Your task to perform on an android device: Search for "usb-a" on bestbuy.com, select the first entry, add it to the cart, then select checkout. Image 0: 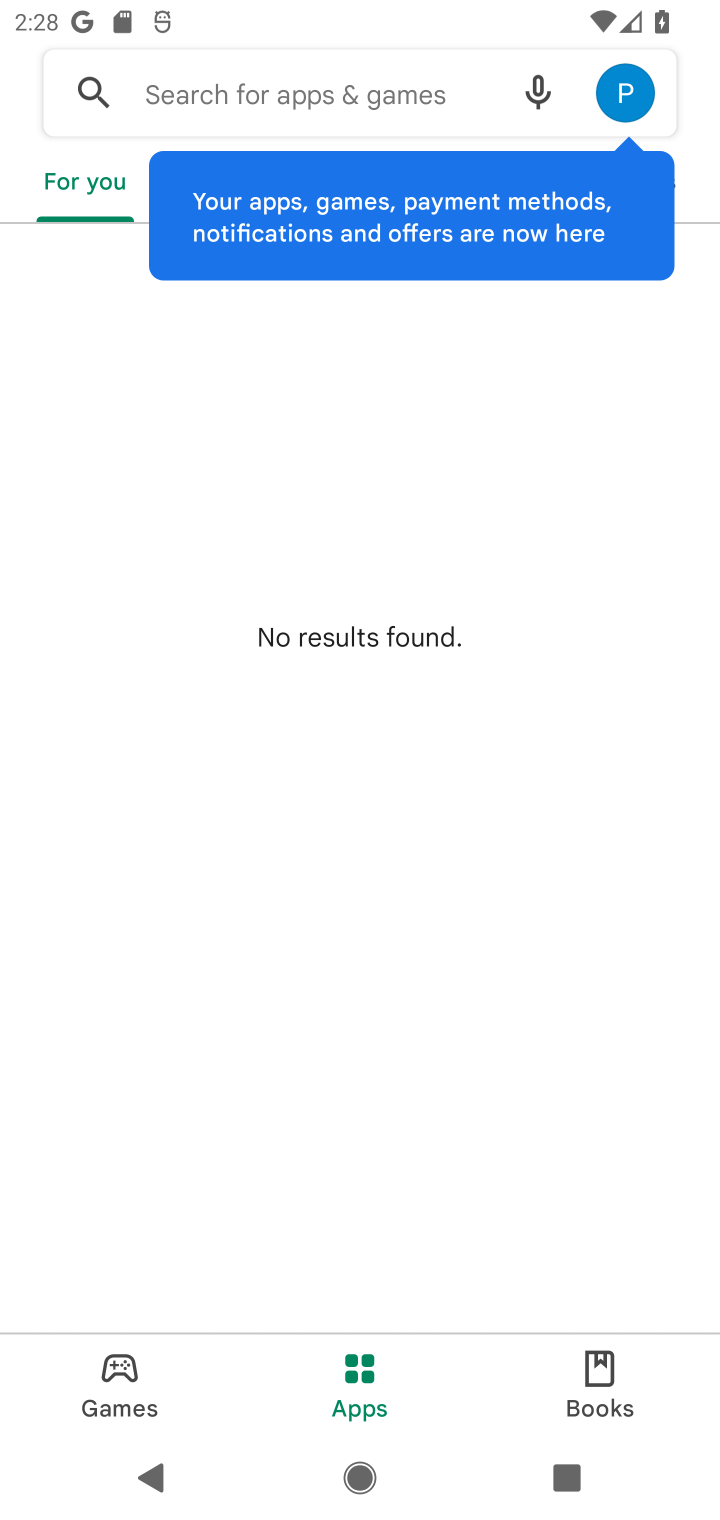
Step 0: press home button
Your task to perform on an android device: Search for "usb-a" on bestbuy.com, select the first entry, add it to the cart, then select checkout. Image 1: 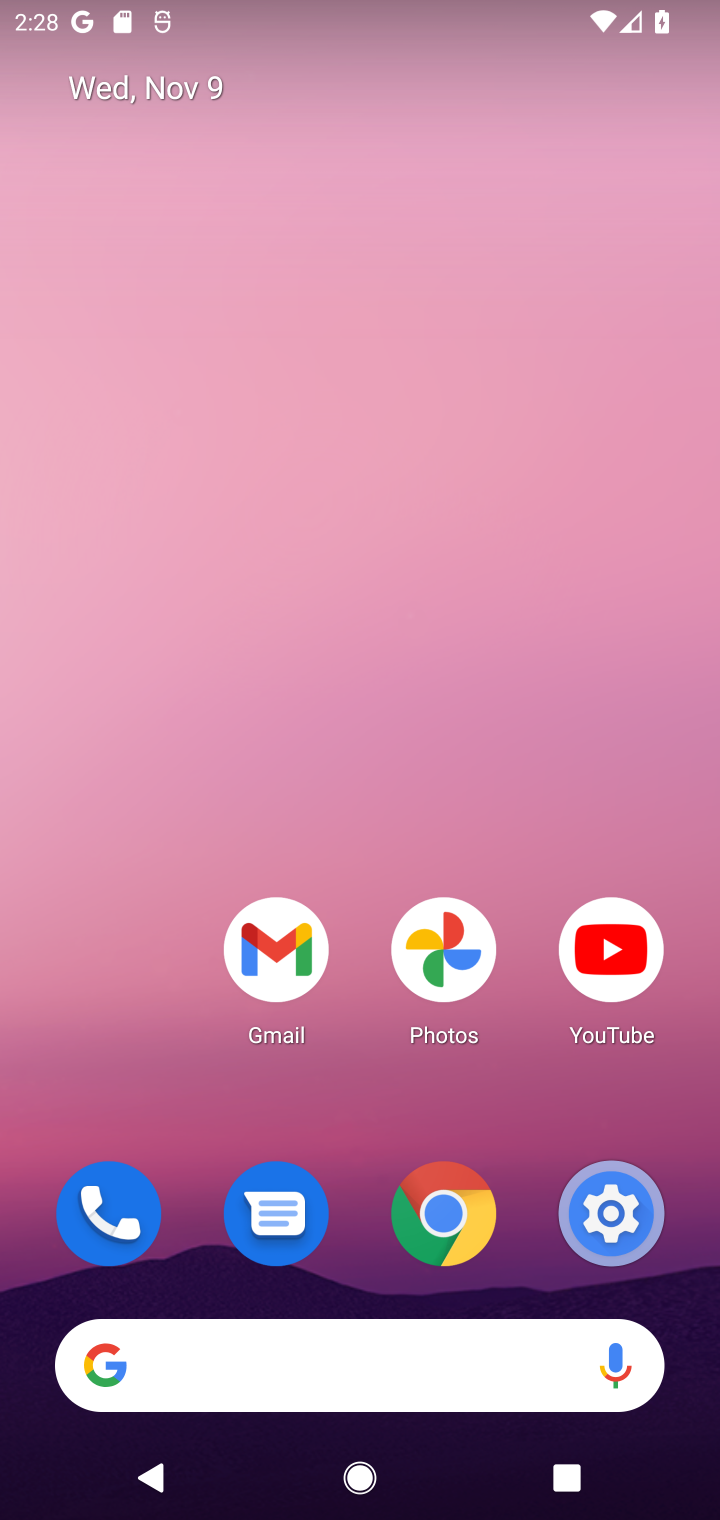
Step 1: click (442, 1210)
Your task to perform on an android device: Search for "usb-a" on bestbuy.com, select the first entry, add it to the cart, then select checkout. Image 2: 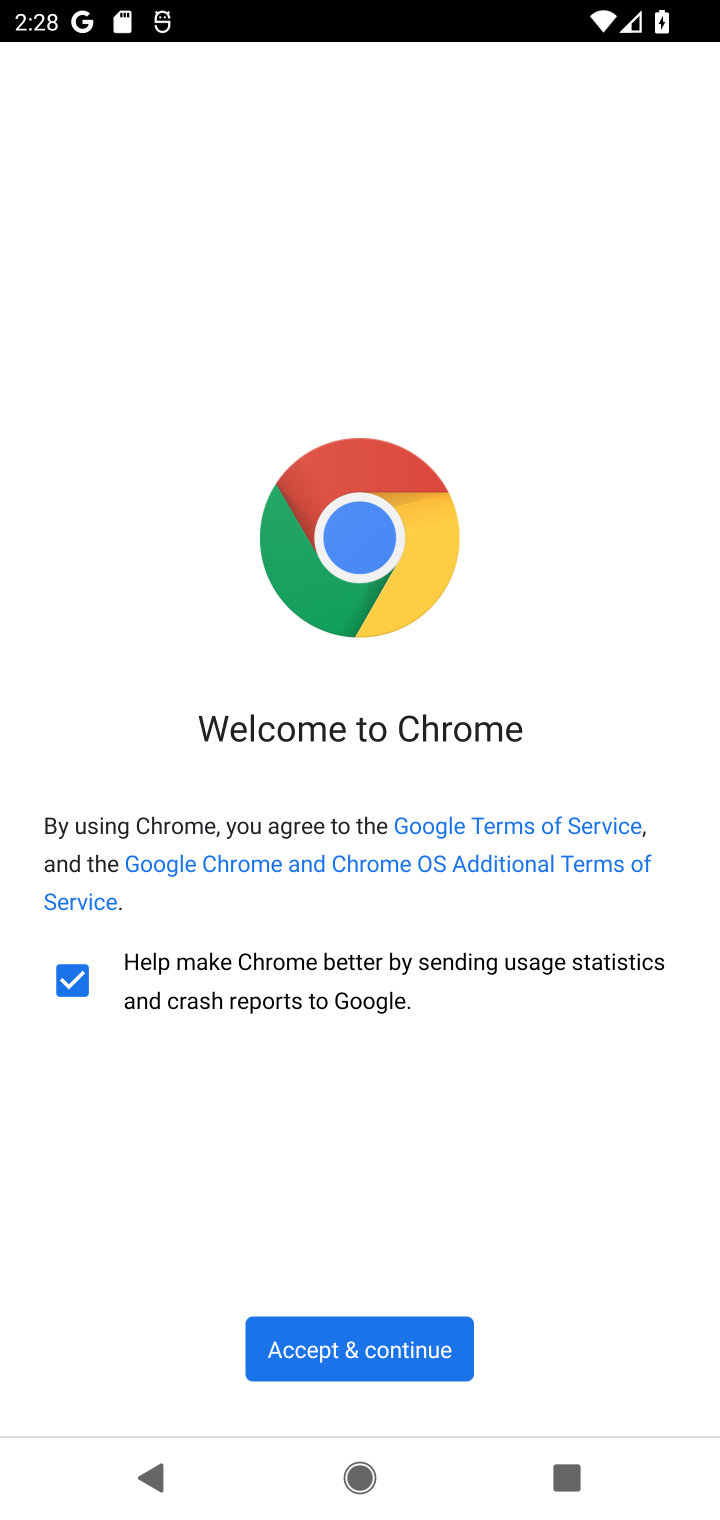
Step 2: click (361, 1355)
Your task to perform on an android device: Search for "usb-a" on bestbuy.com, select the first entry, add it to the cart, then select checkout. Image 3: 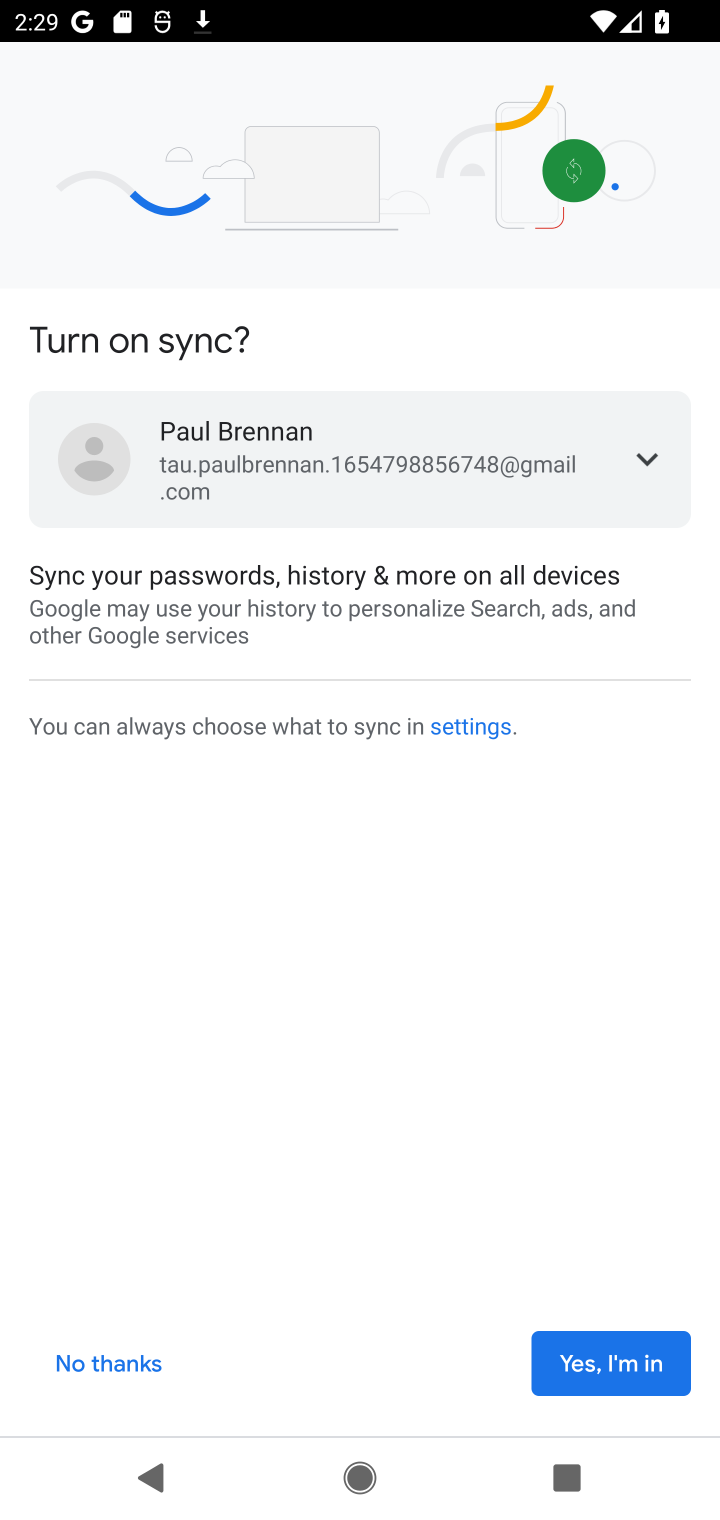
Step 3: click (599, 1365)
Your task to perform on an android device: Search for "usb-a" on bestbuy.com, select the first entry, add it to the cart, then select checkout. Image 4: 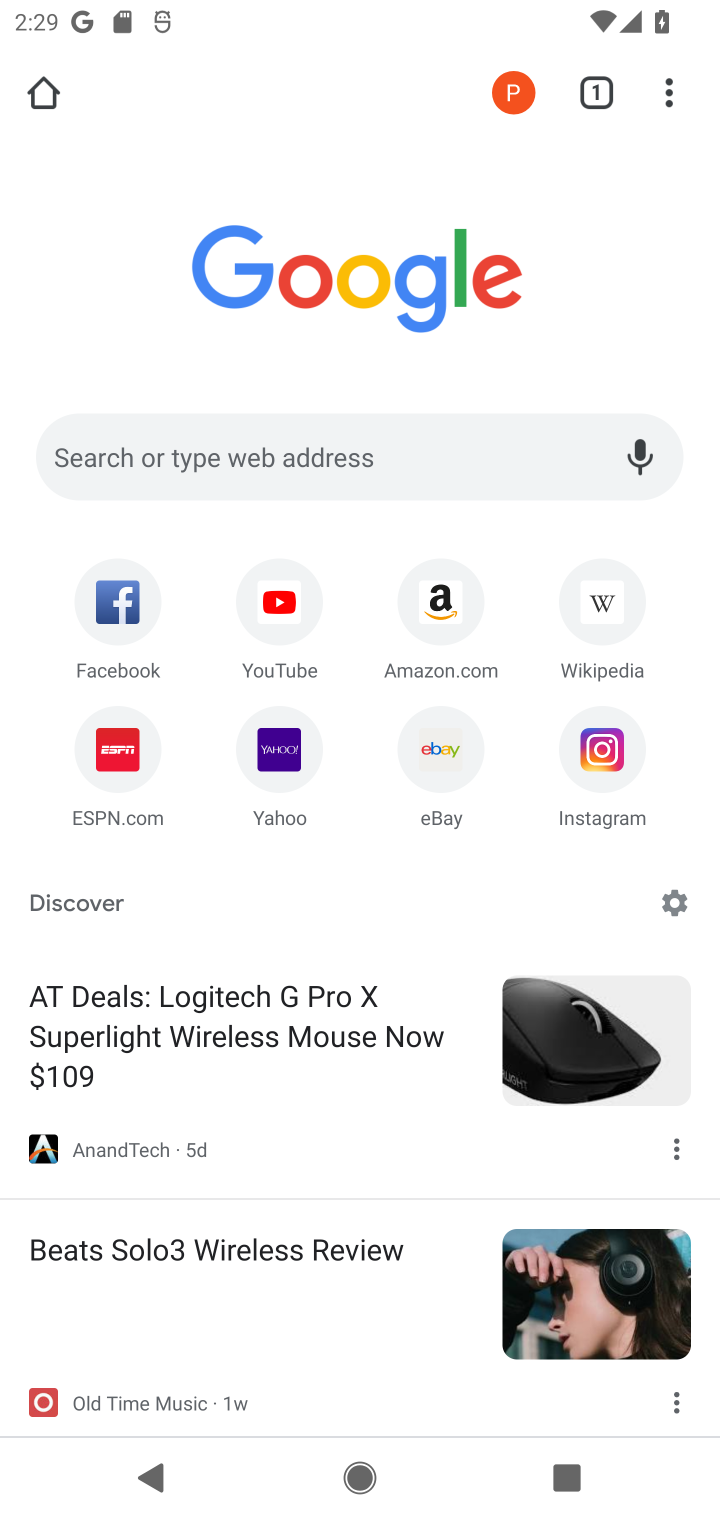
Step 4: click (426, 452)
Your task to perform on an android device: Search for "usb-a" on bestbuy.com, select the first entry, add it to the cart, then select checkout. Image 5: 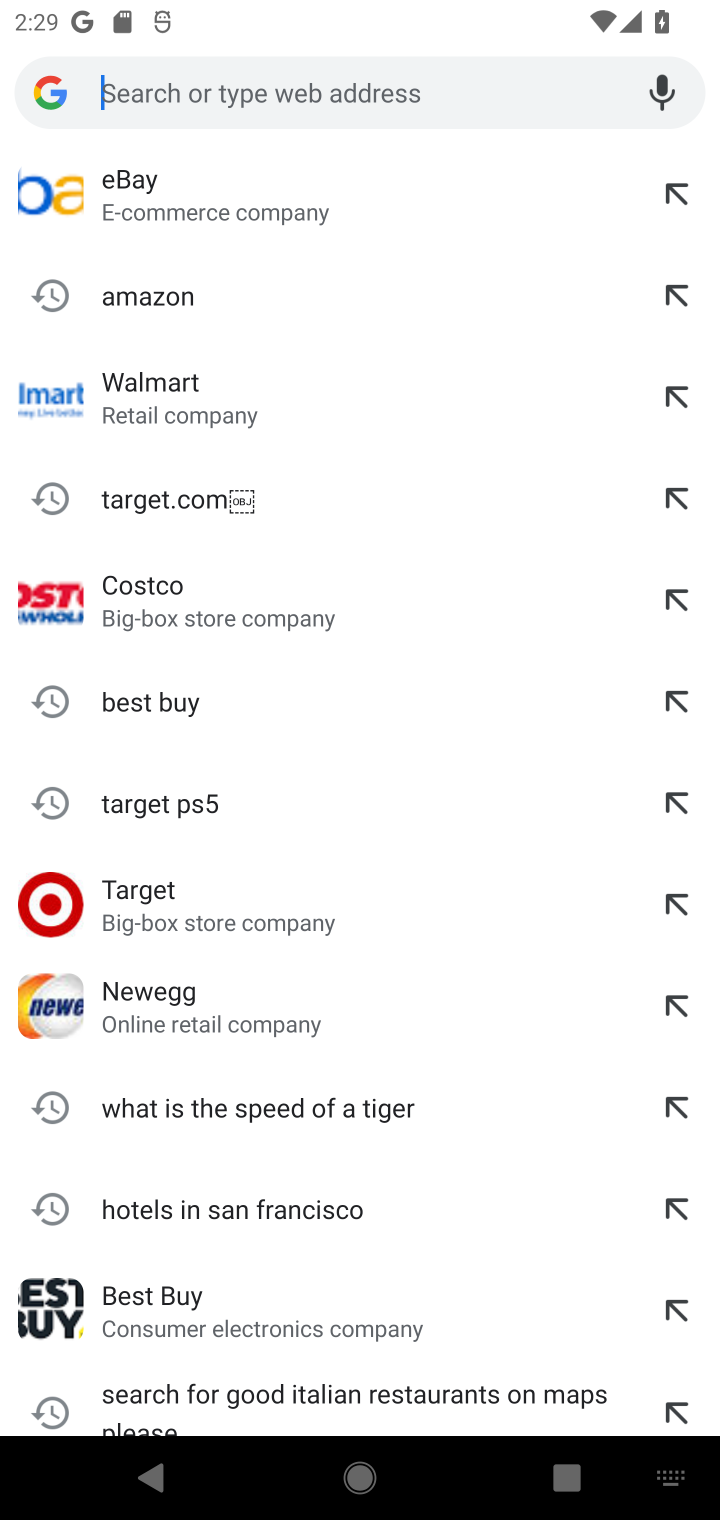
Step 5: type "bestbuy.com"
Your task to perform on an android device: Search for "usb-a" on bestbuy.com, select the first entry, add it to the cart, then select checkout. Image 6: 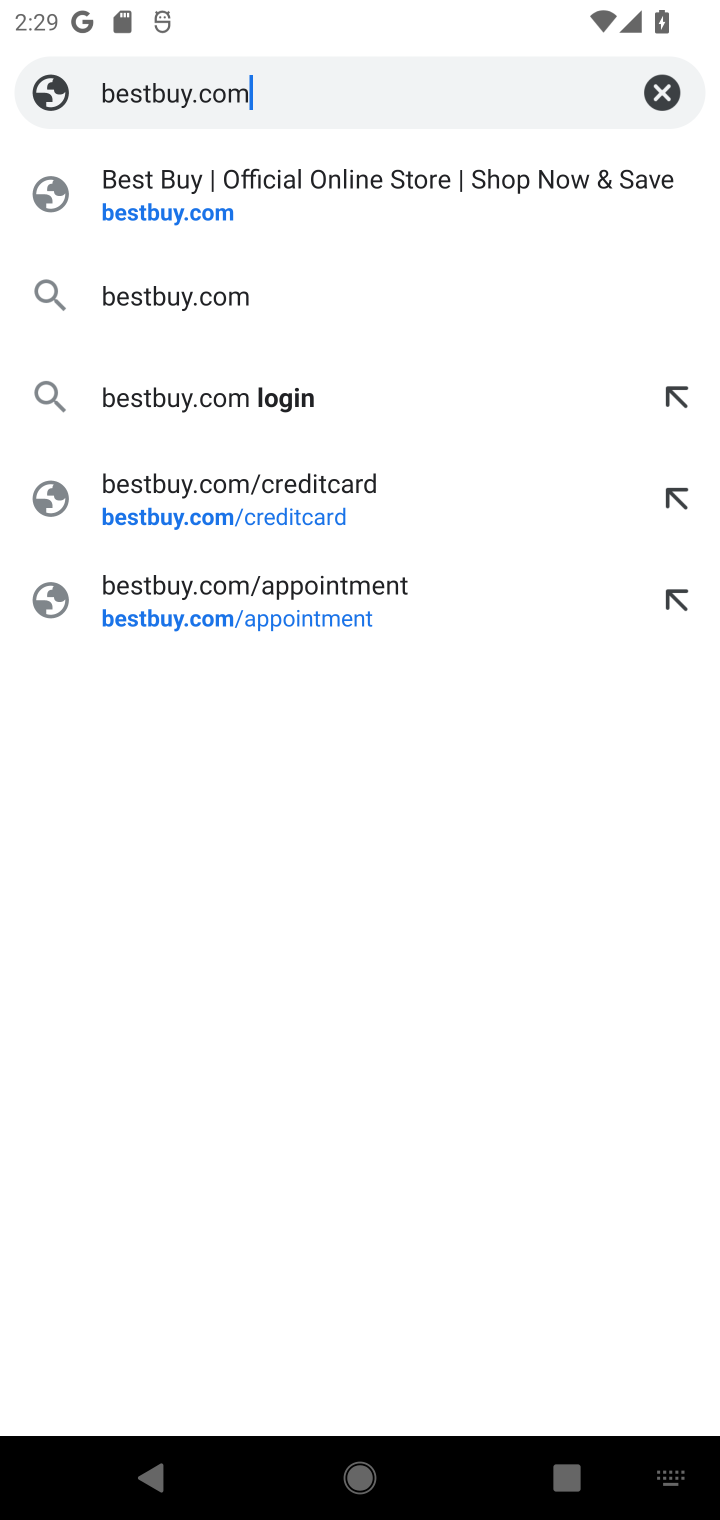
Step 6: click (186, 317)
Your task to perform on an android device: Search for "usb-a" on bestbuy.com, select the first entry, add it to the cart, then select checkout. Image 7: 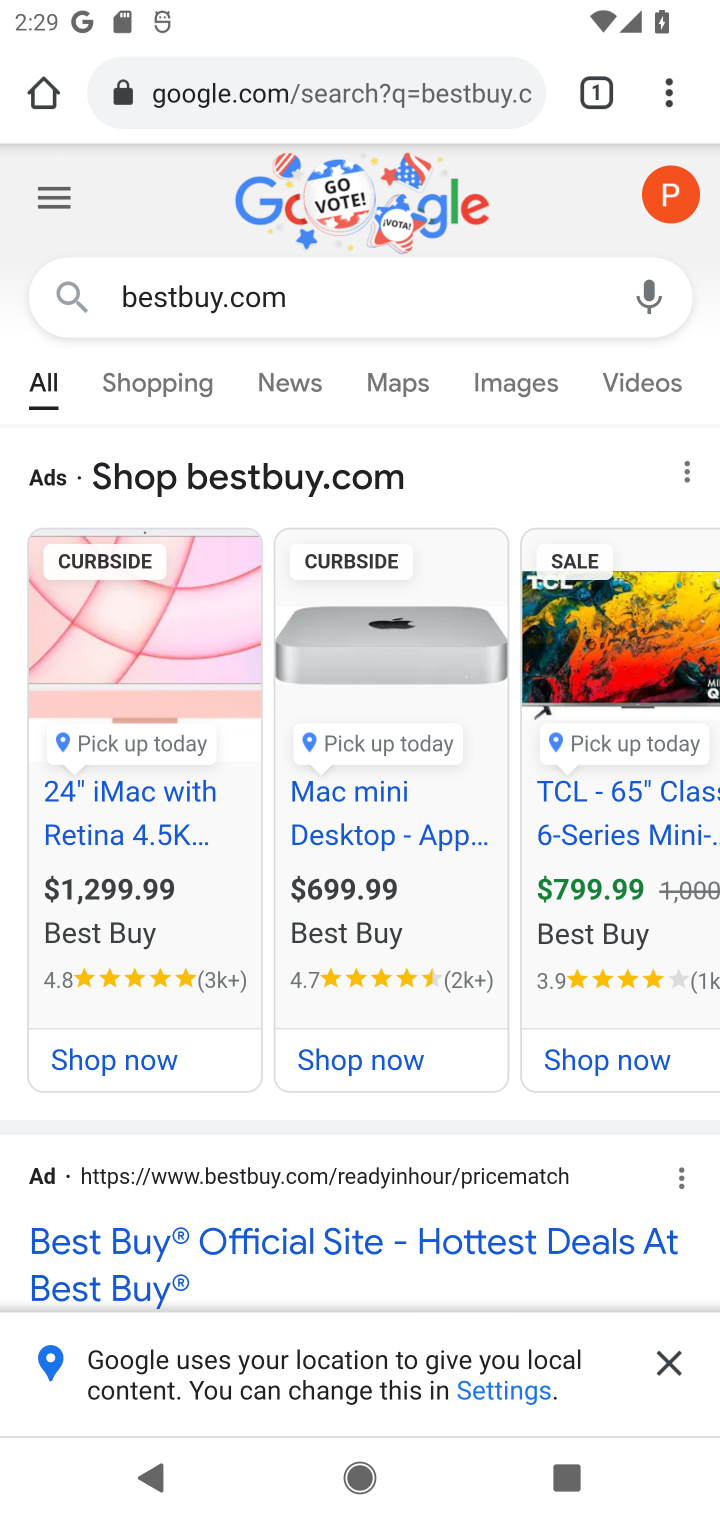
Step 7: drag from (300, 1209) to (365, 619)
Your task to perform on an android device: Search for "usb-a" on bestbuy.com, select the first entry, add it to the cart, then select checkout. Image 8: 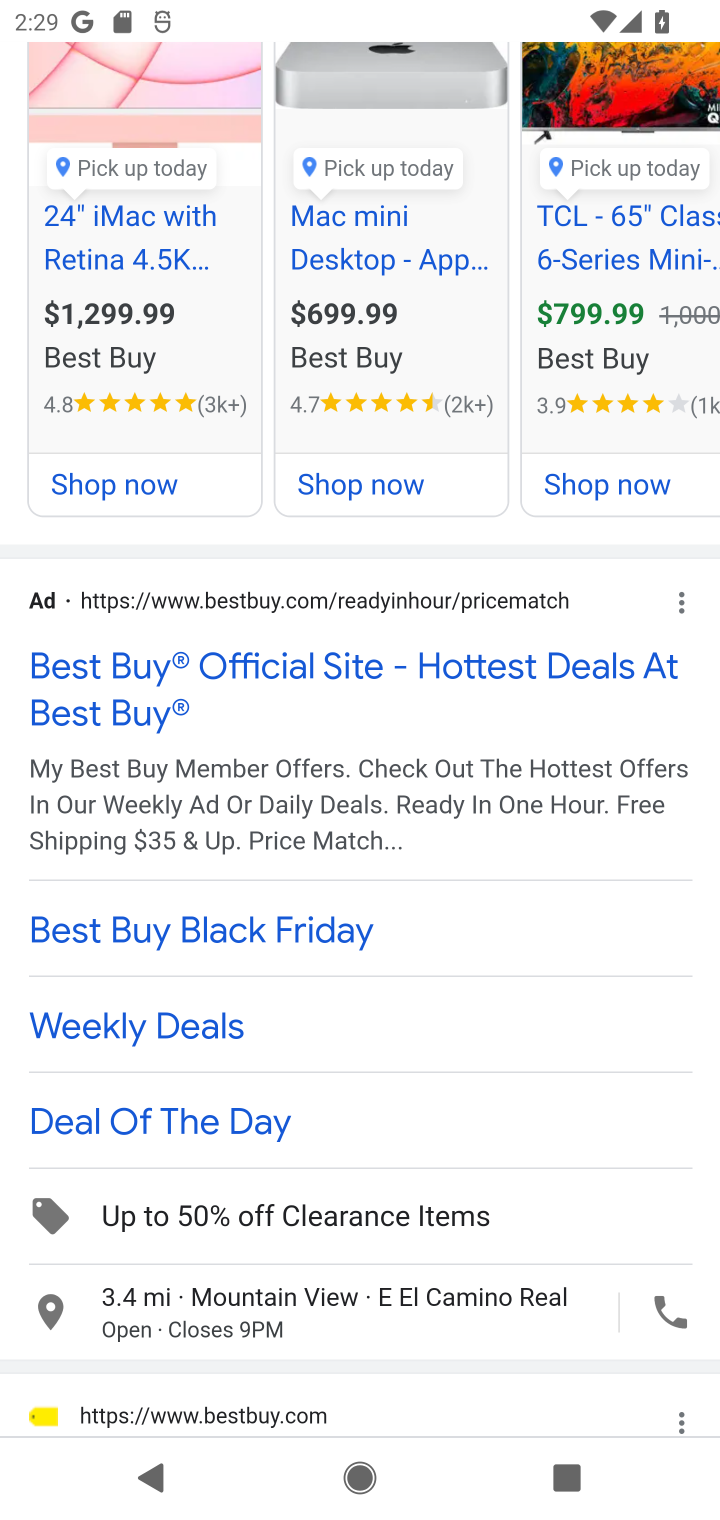
Step 8: drag from (340, 1180) to (414, 389)
Your task to perform on an android device: Search for "usb-a" on bestbuy.com, select the first entry, add it to the cart, then select checkout. Image 9: 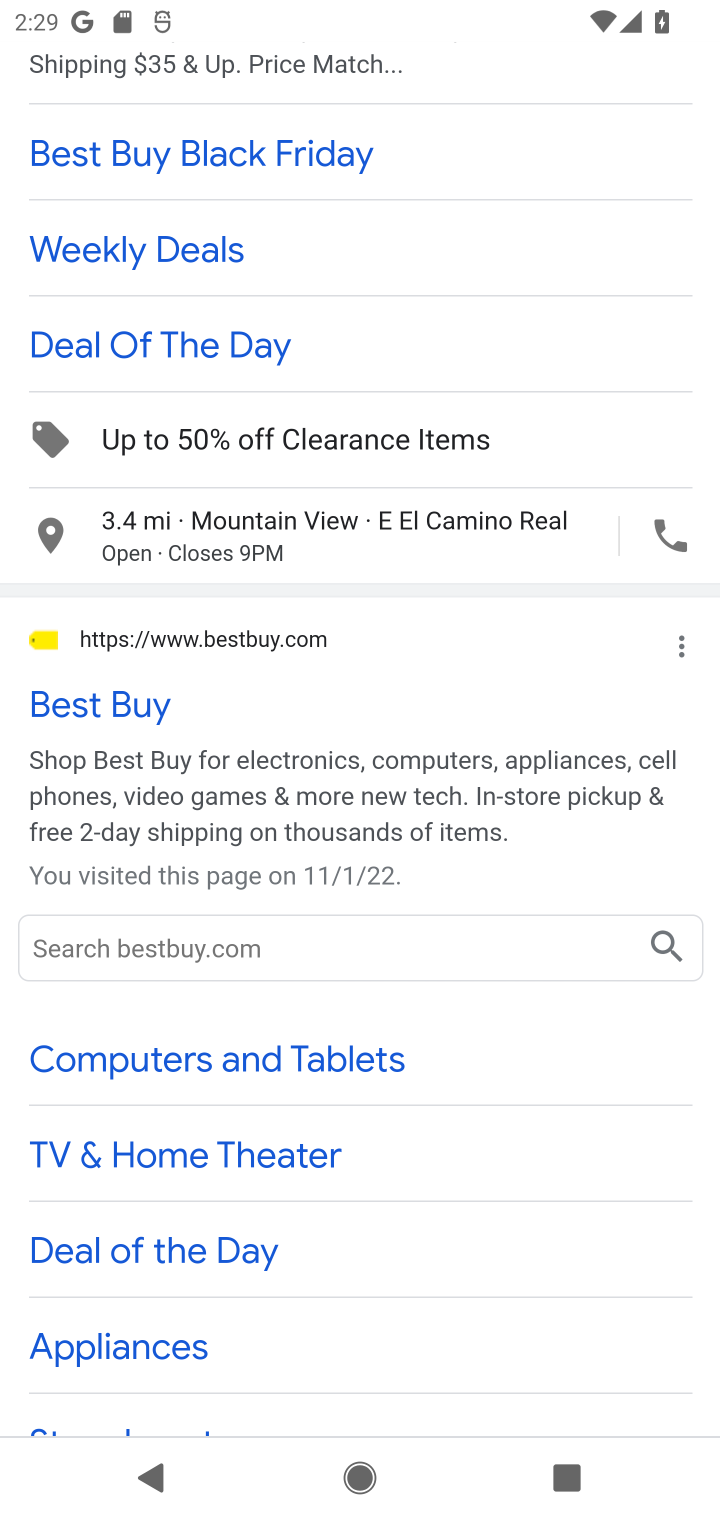
Step 9: click (112, 698)
Your task to perform on an android device: Search for "usb-a" on bestbuy.com, select the first entry, add it to the cart, then select checkout. Image 10: 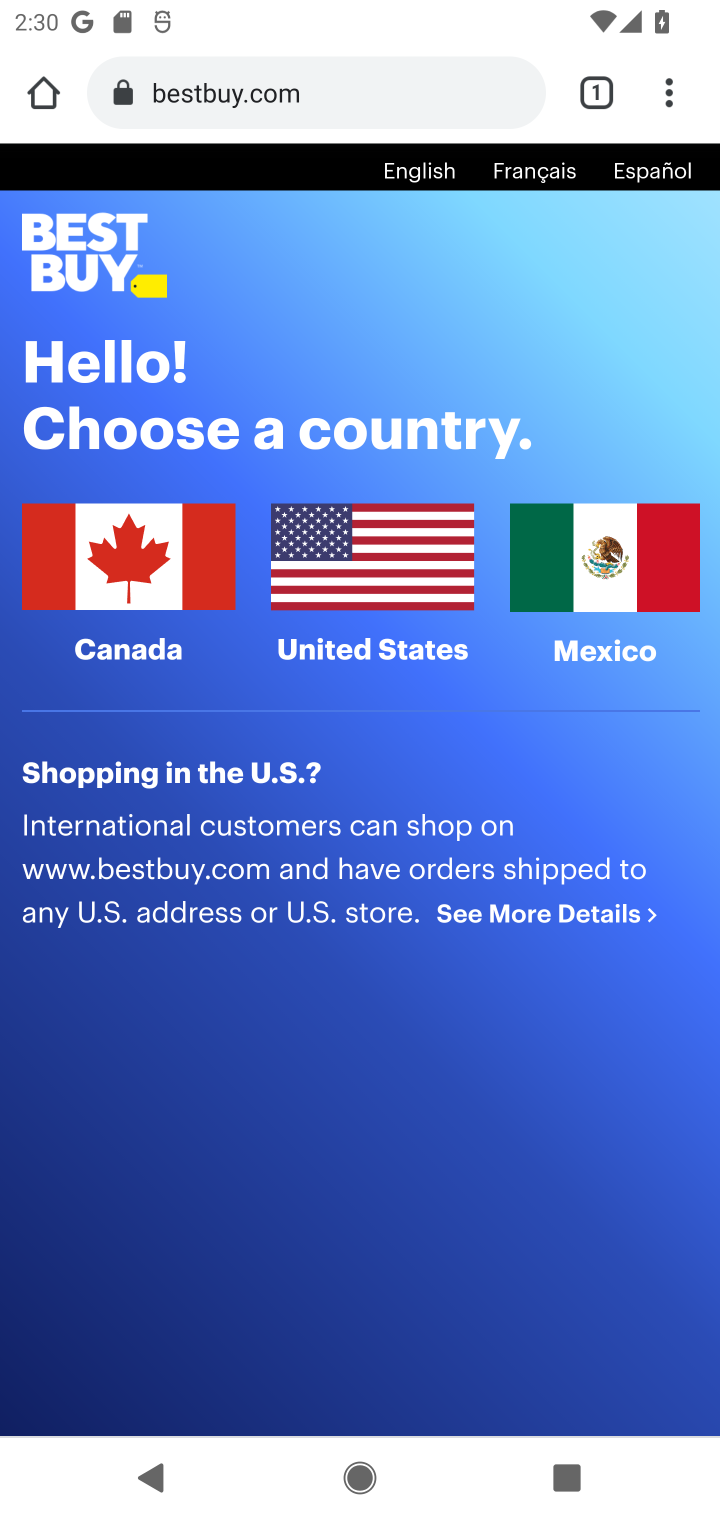
Step 10: click (350, 598)
Your task to perform on an android device: Search for "usb-a" on bestbuy.com, select the first entry, add it to the cart, then select checkout. Image 11: 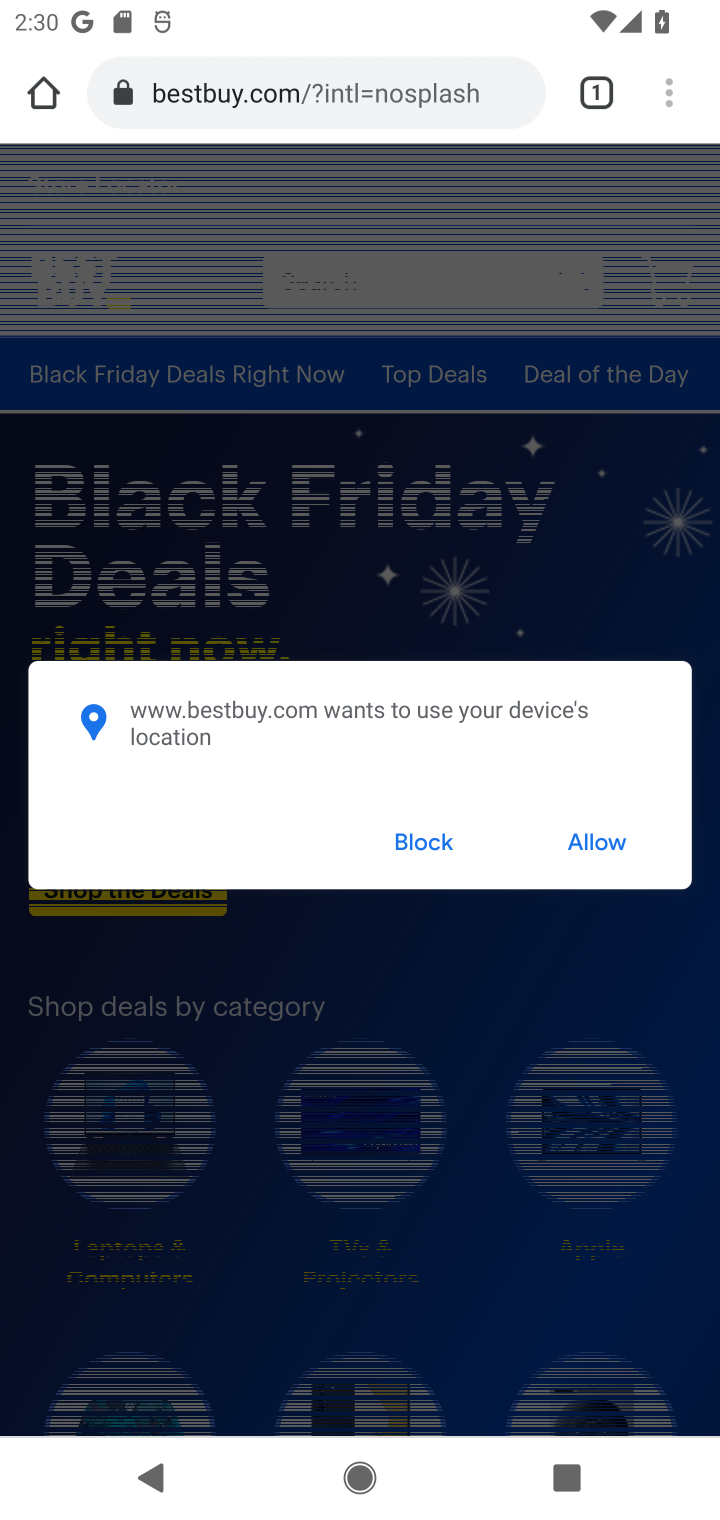
Step 11: click (461, 283)
Your task to perform on an android device: Search for "usb-a" on bestbuy.com, select the first entry, add it to the cart, then select checkout. Image 12: 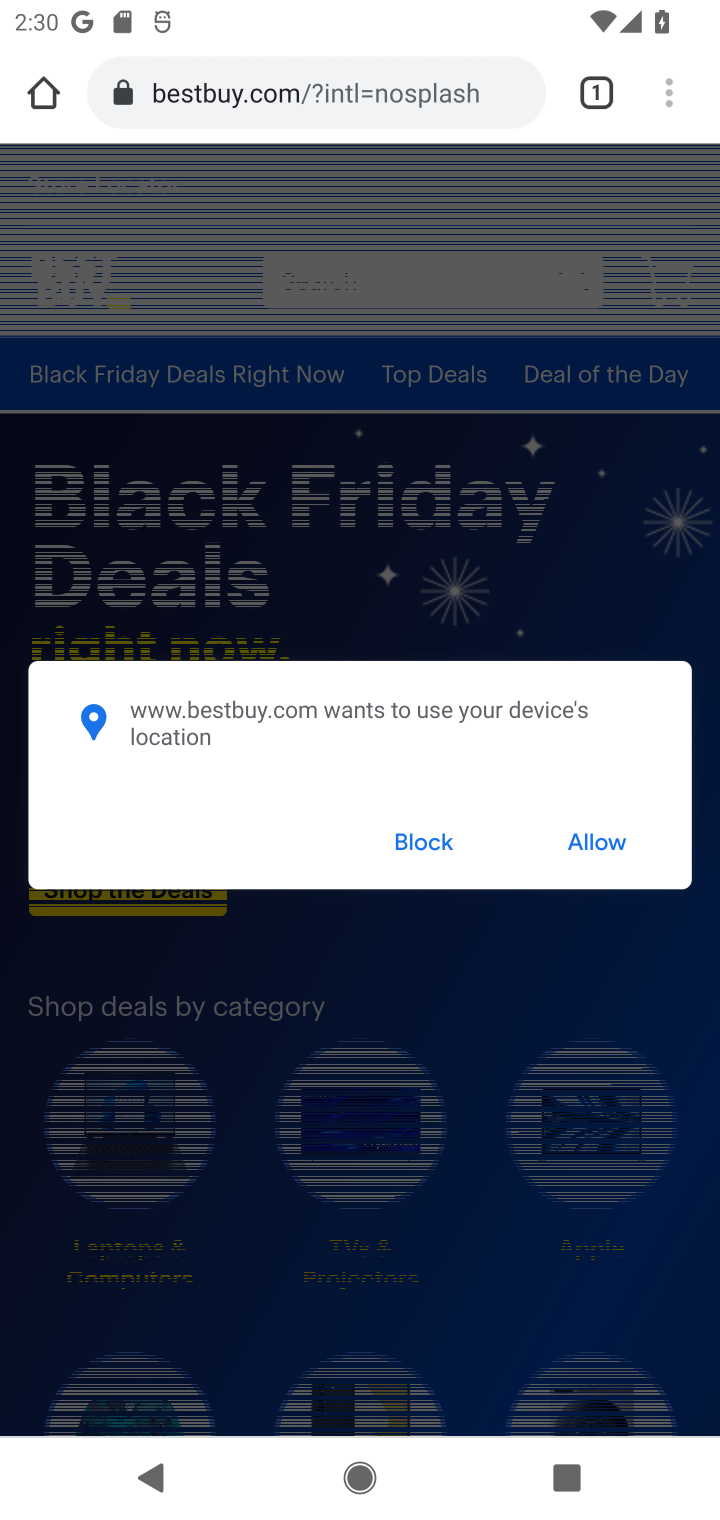
Step 12: click (608, 848)
Your task to perform on an android device: Search for "usb-a" on bestbuy.com, select the first entry, add it to the cart, then select checkout. Image 13: 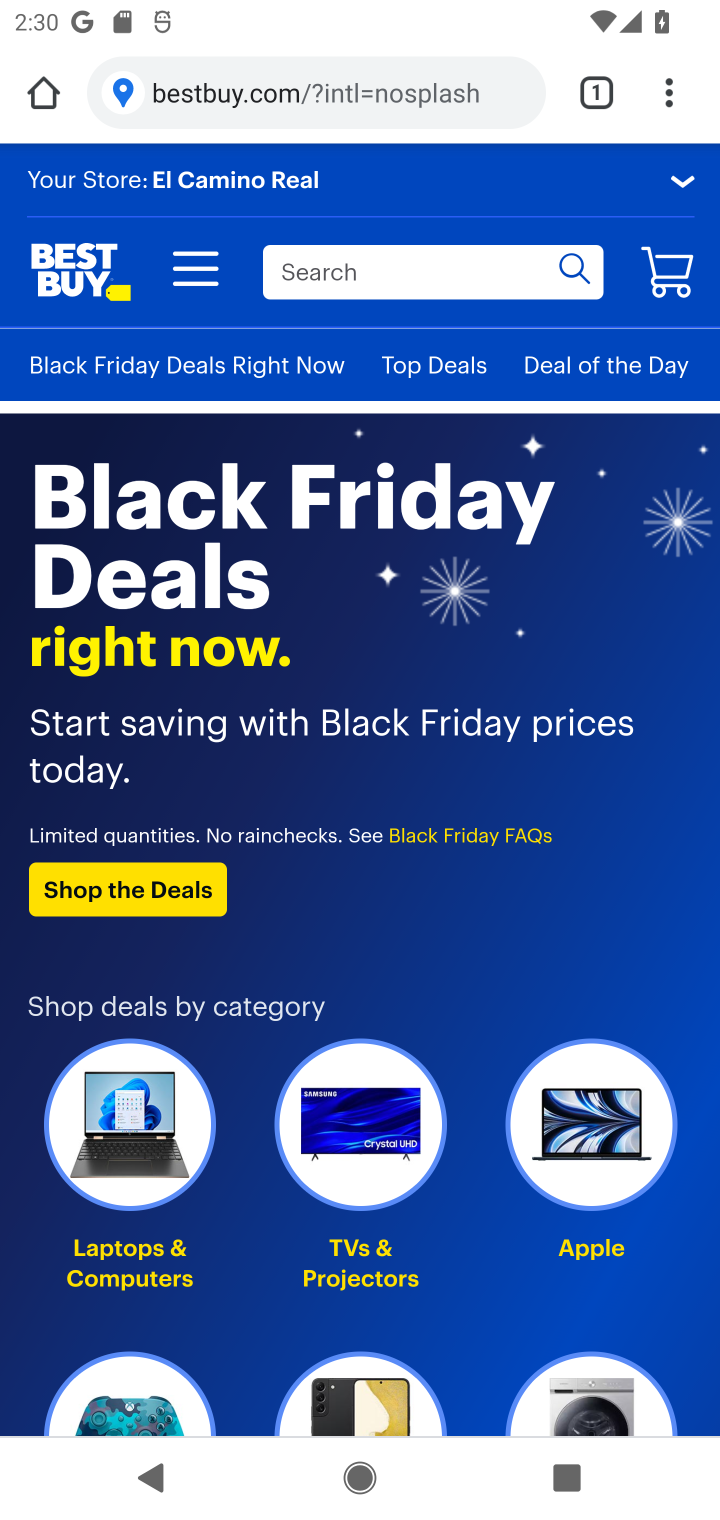
Step 13: click (397, 263)
Your task to perform on an android device: Search for "usb-a" on bestbuy.com, select the first entry, add it to the cart, then select checkout. Image 14: 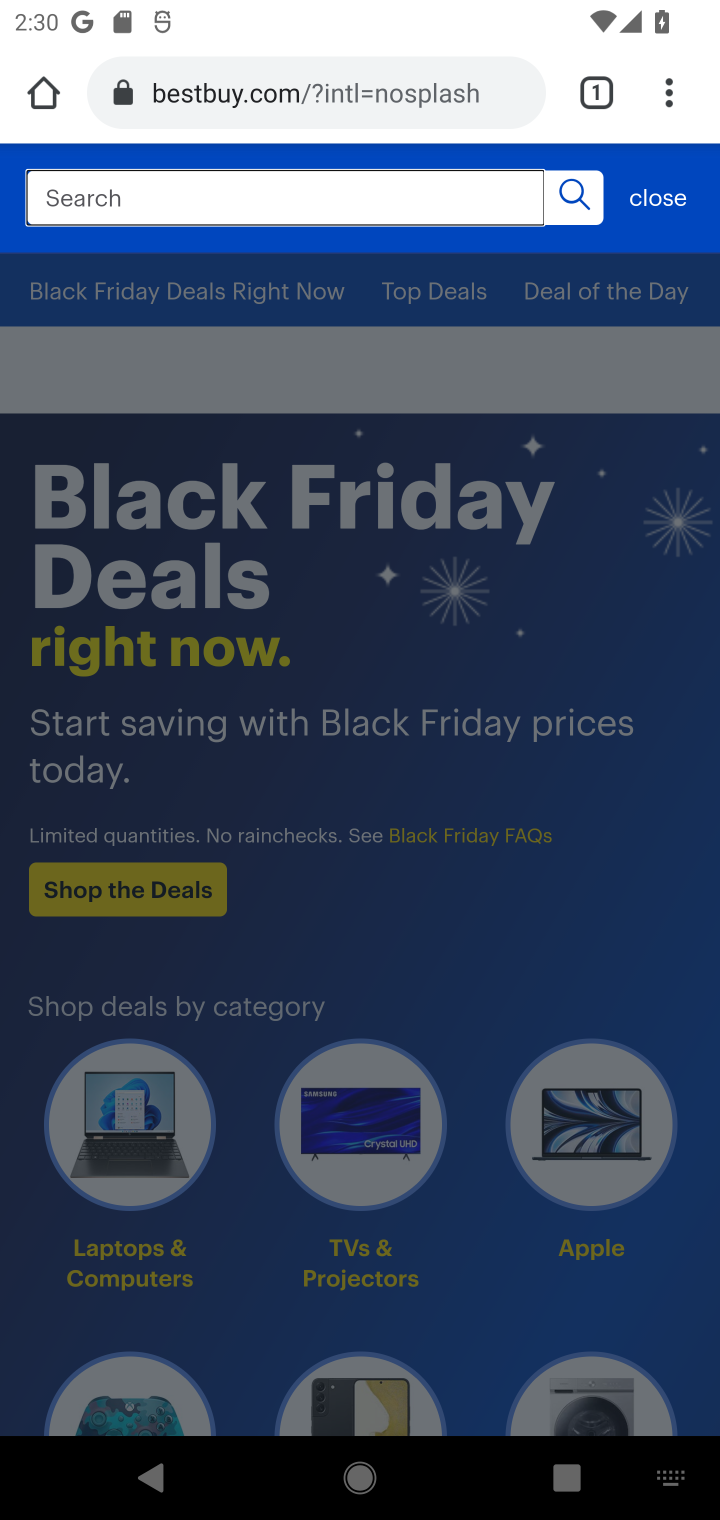
Step 14: type "usb-a"
Your task to perform on an android device: Search for "usb-a" on bestbuy.com, select the first entry, add it to the cart, then select checkout. Image 15: 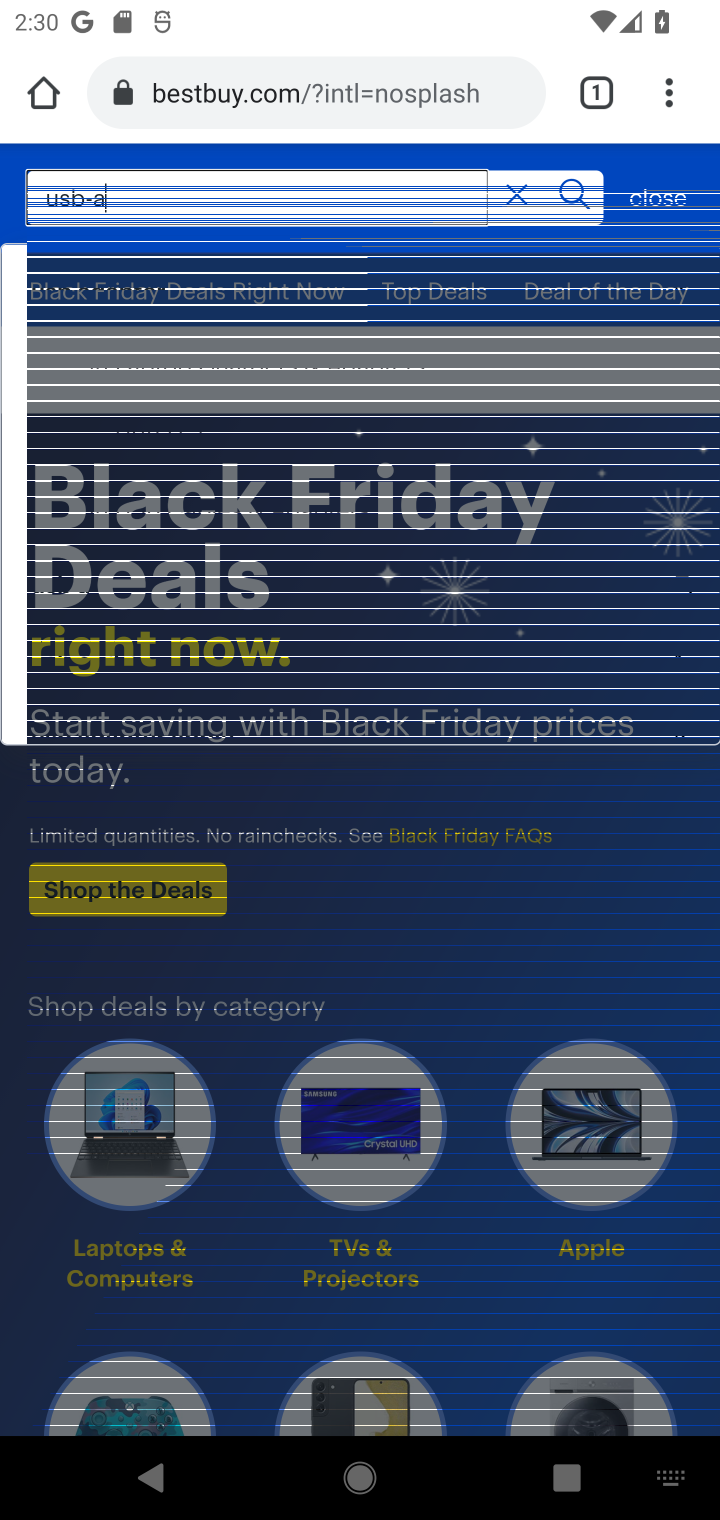
Step 15: click (574, 191)
Your task to perform on an android device: Search for "usb-a" on bestbuy.com, select the first entry, add it to the cart, then select checkout. Image 16: 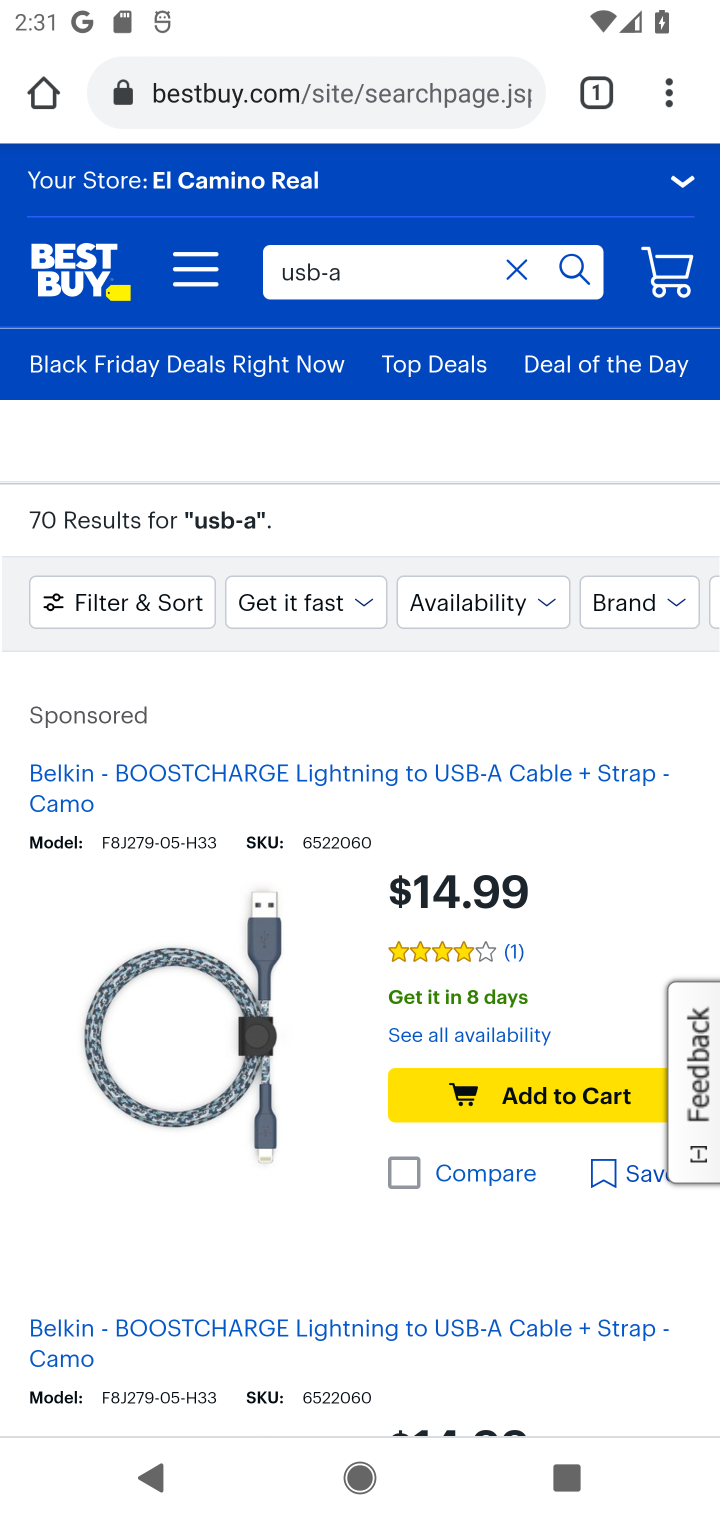
Step 16: click (350, 790)
Your task to perform on an android device: Search for "usb-a" on bestbuy.com, select the first entry, add it to the cart, then select checkout. Image 17: 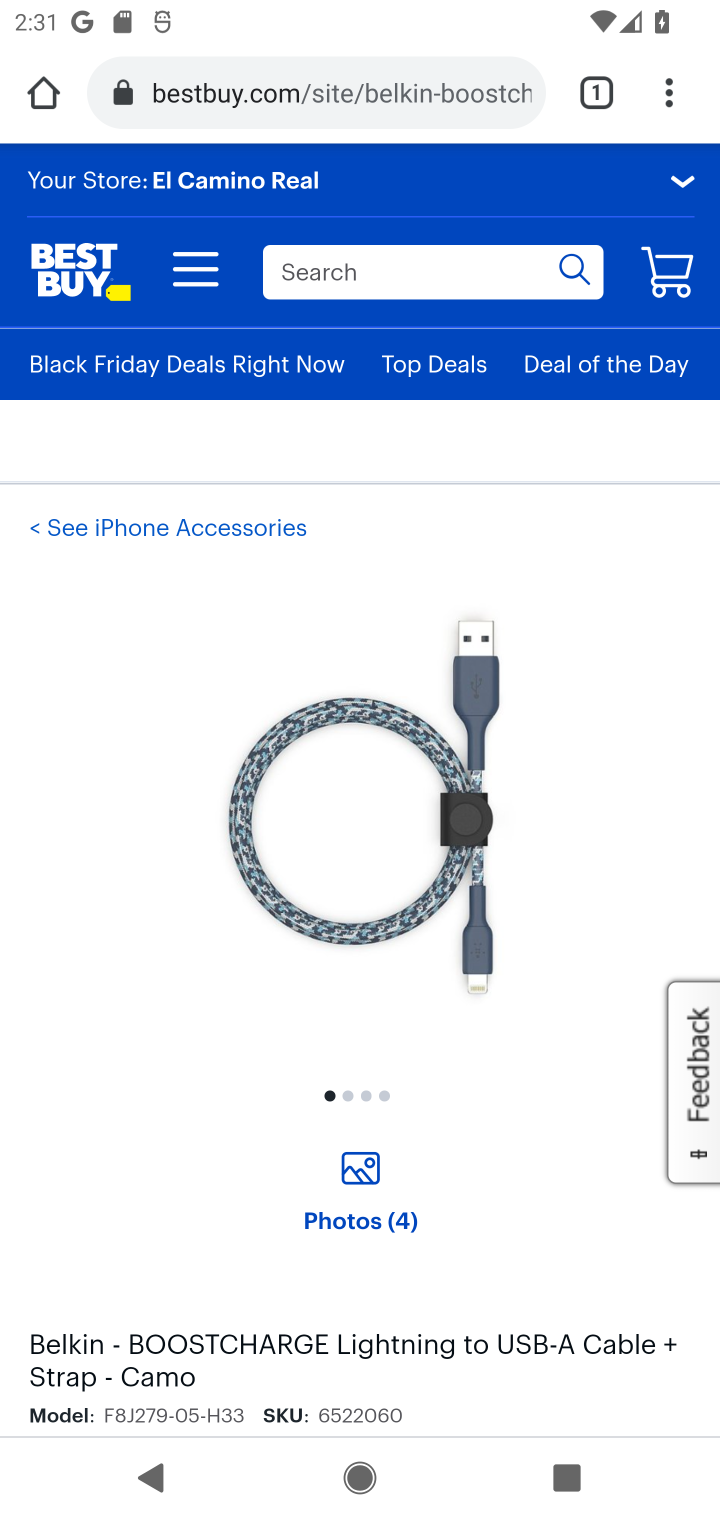
Step 17: drag from (487, 1115) to (521, 503)
Your task to perform on an android device: Search for "usb-a" on bestbuy.com, select the first entry, add it to the cart, then select checkout. Image 18: 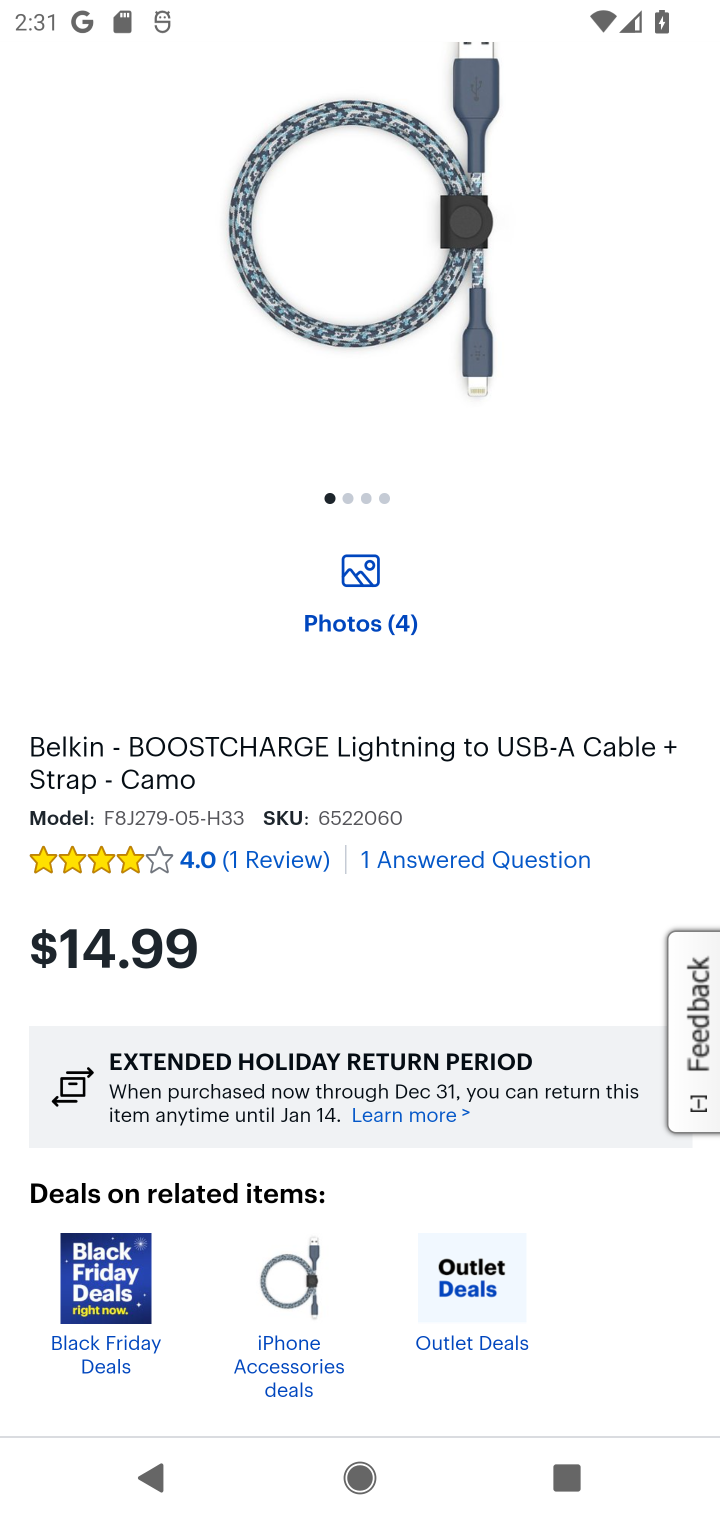
Step 18: drag from (595, 1287) to (594, 577)
Your task to perform on an android device: Search for "usb-a" on bestbuy.com, select the first entry, add it to the cart, then select checkout. Image 19: 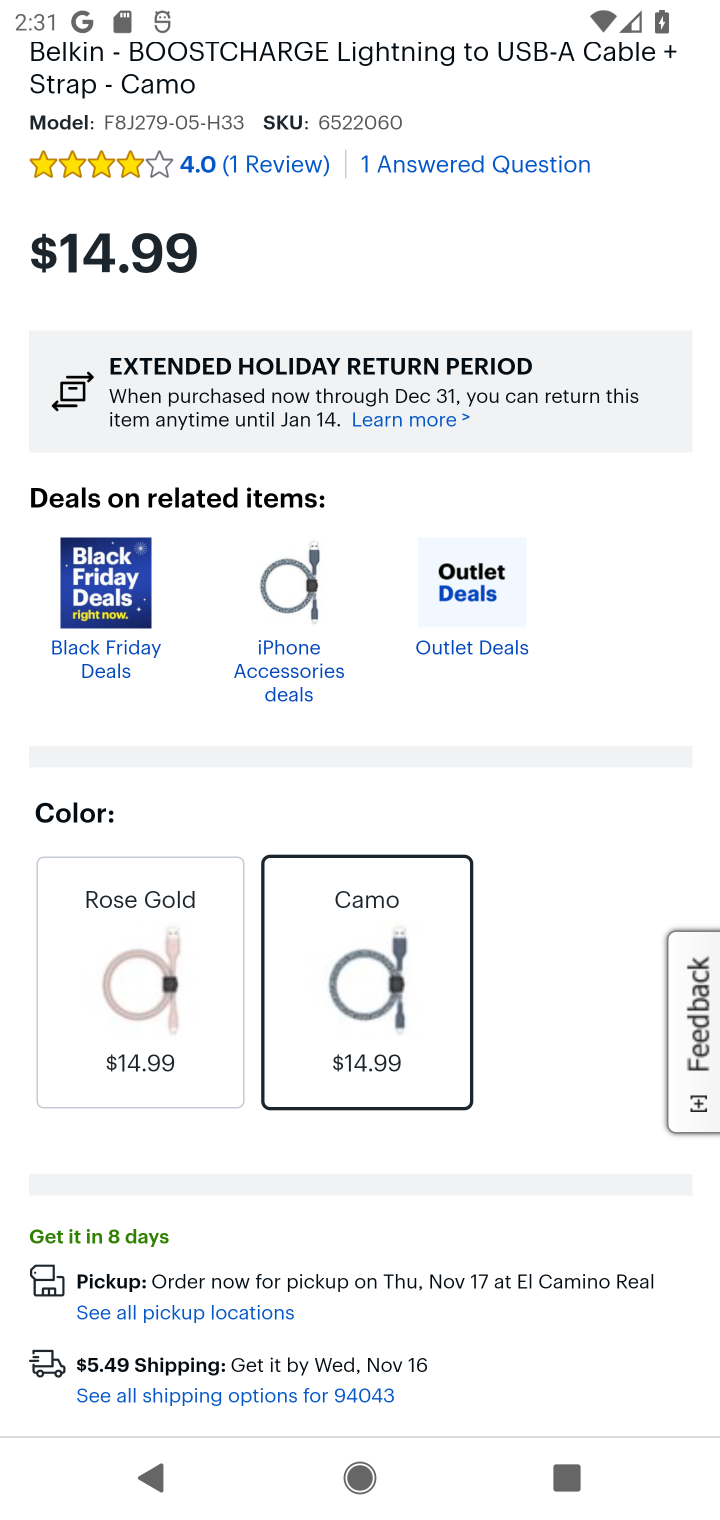
Step 19: drag from (579, 926) to (597, 343)
Your task to perform on an android device: Search for "usb-a" on bestbuy.com, select the first entry, add it to the cart, then select checkout. Image 20: 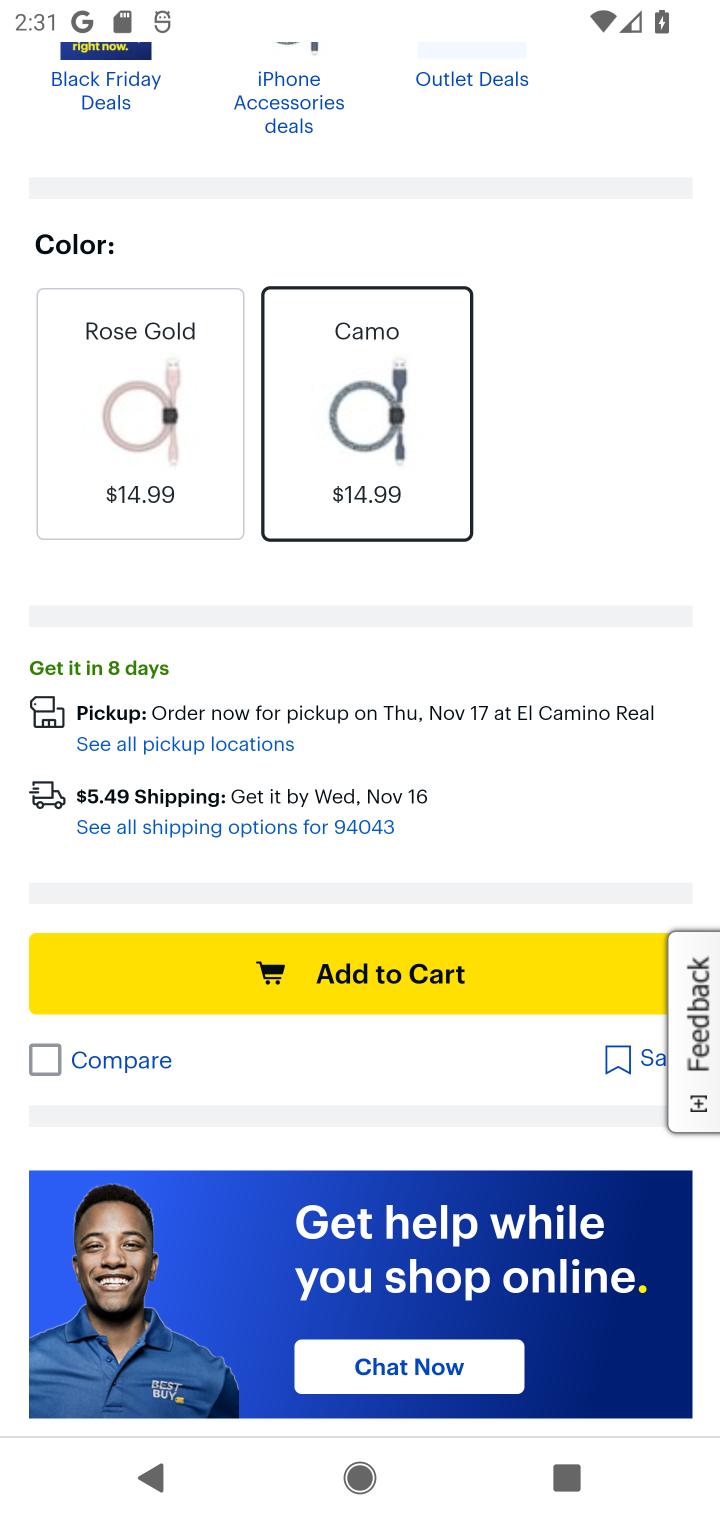
Step 20: click (370, 976)
Your task to perform on an android device: Search for "usb-a" on bestbuy.com, select the first entry, add it to the cart, then select checkout. Image 21: 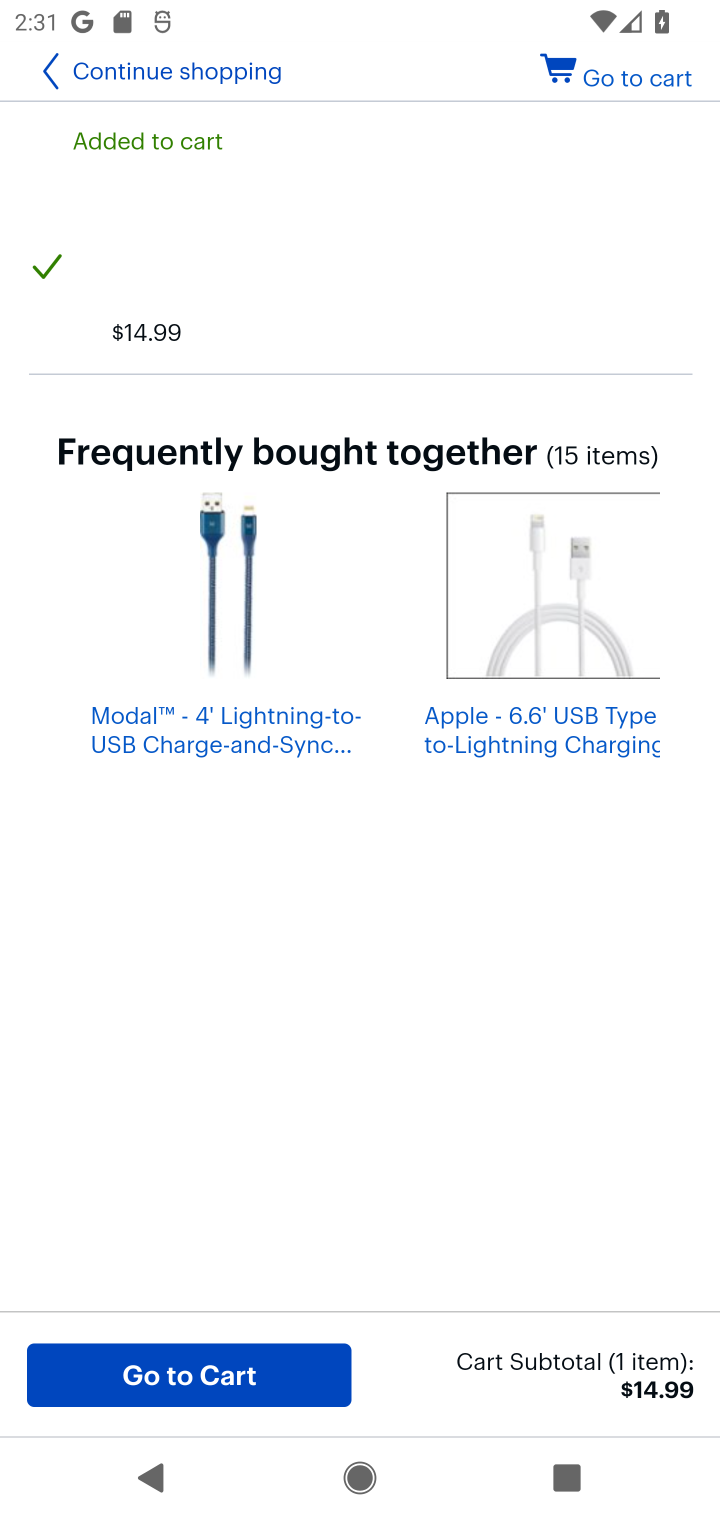
Step 21: click (183, 1375)
Your task to perform on an android device: Search for "usb-a" on bestbuy.com, select the first entry, add it to the cart, then select checkout. Image 22: 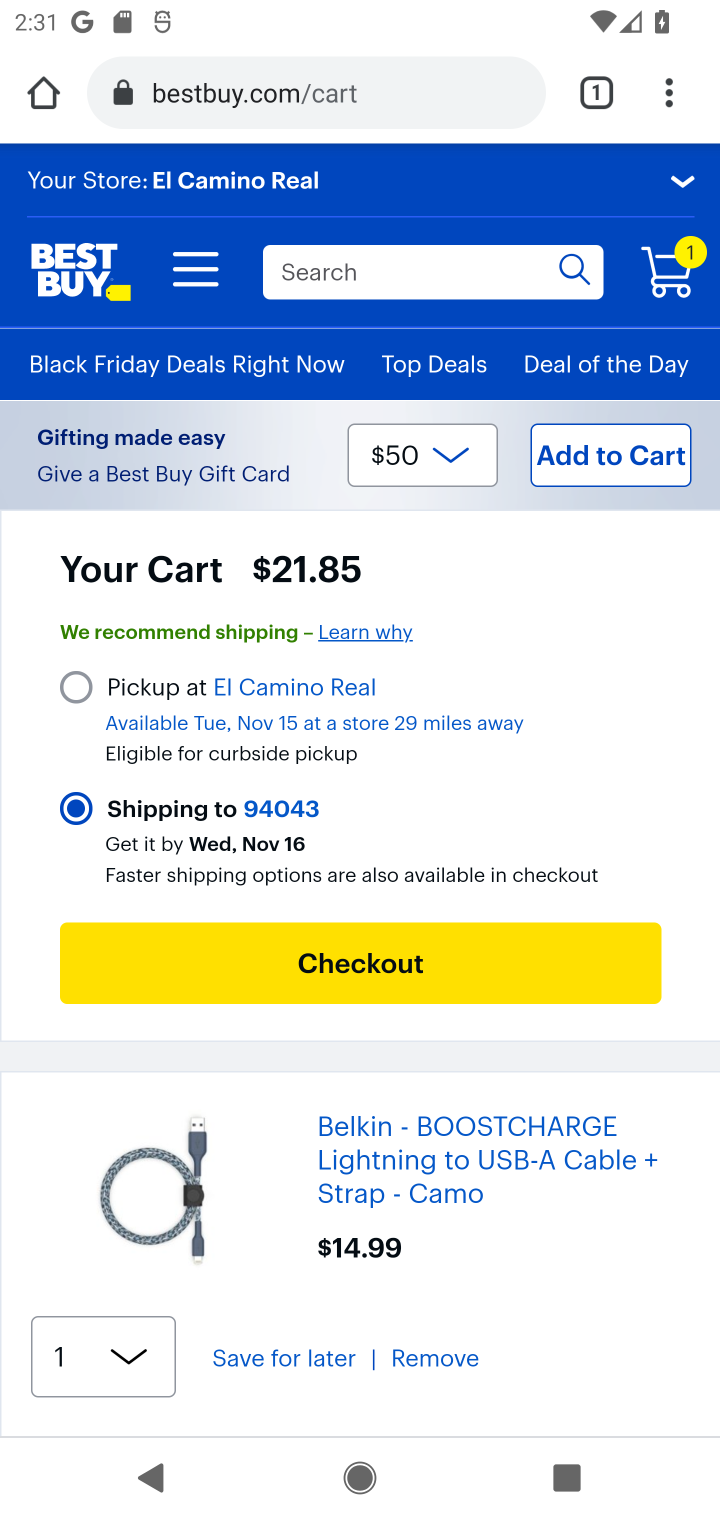
Step 22: click (336, 961)
Your task to perform on an android device: Search for "usb-a" on bestbuy.com, select the first entry, add it to the cart, then select checkout. Image 23: 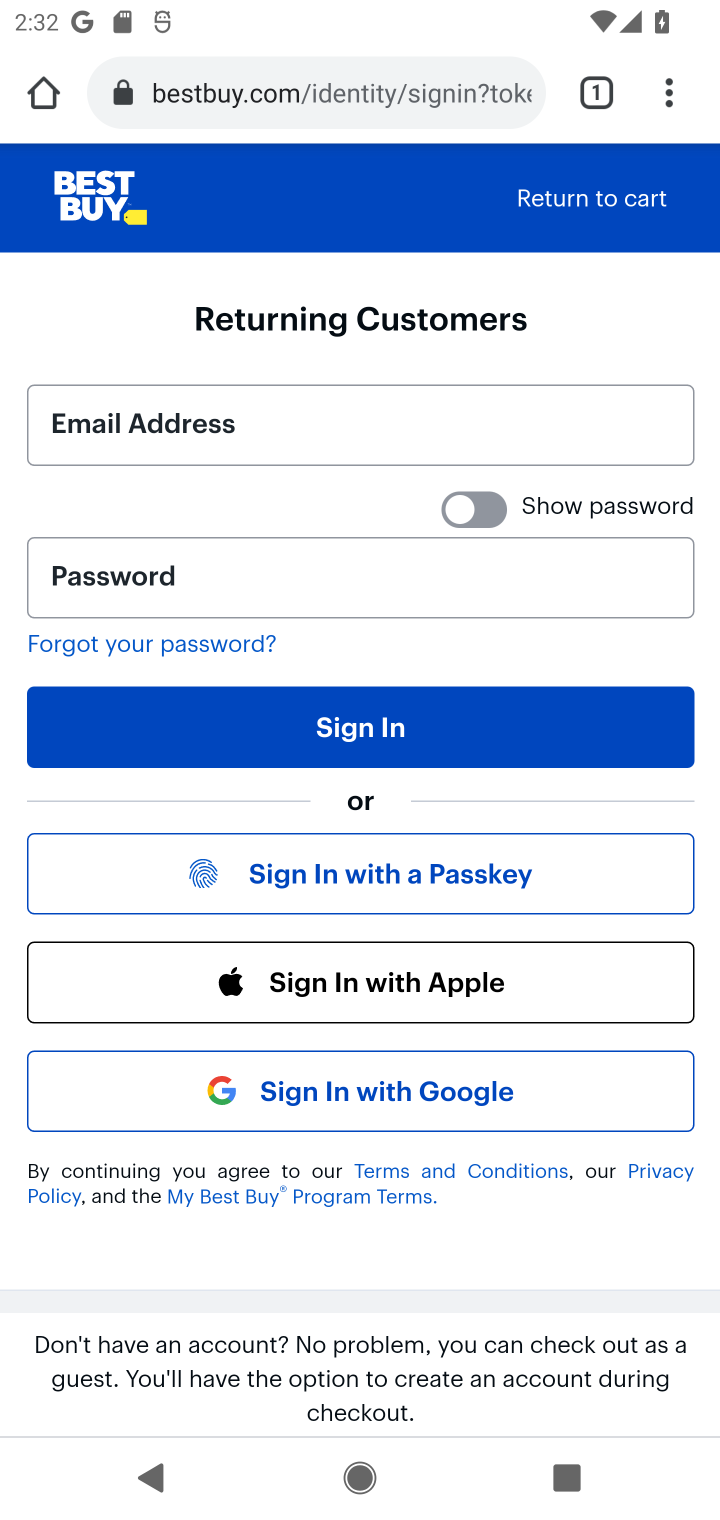
Step 23: task complete